Your task to perform on an android device: install app "Walmart Shopping & Grocery" Image 0: 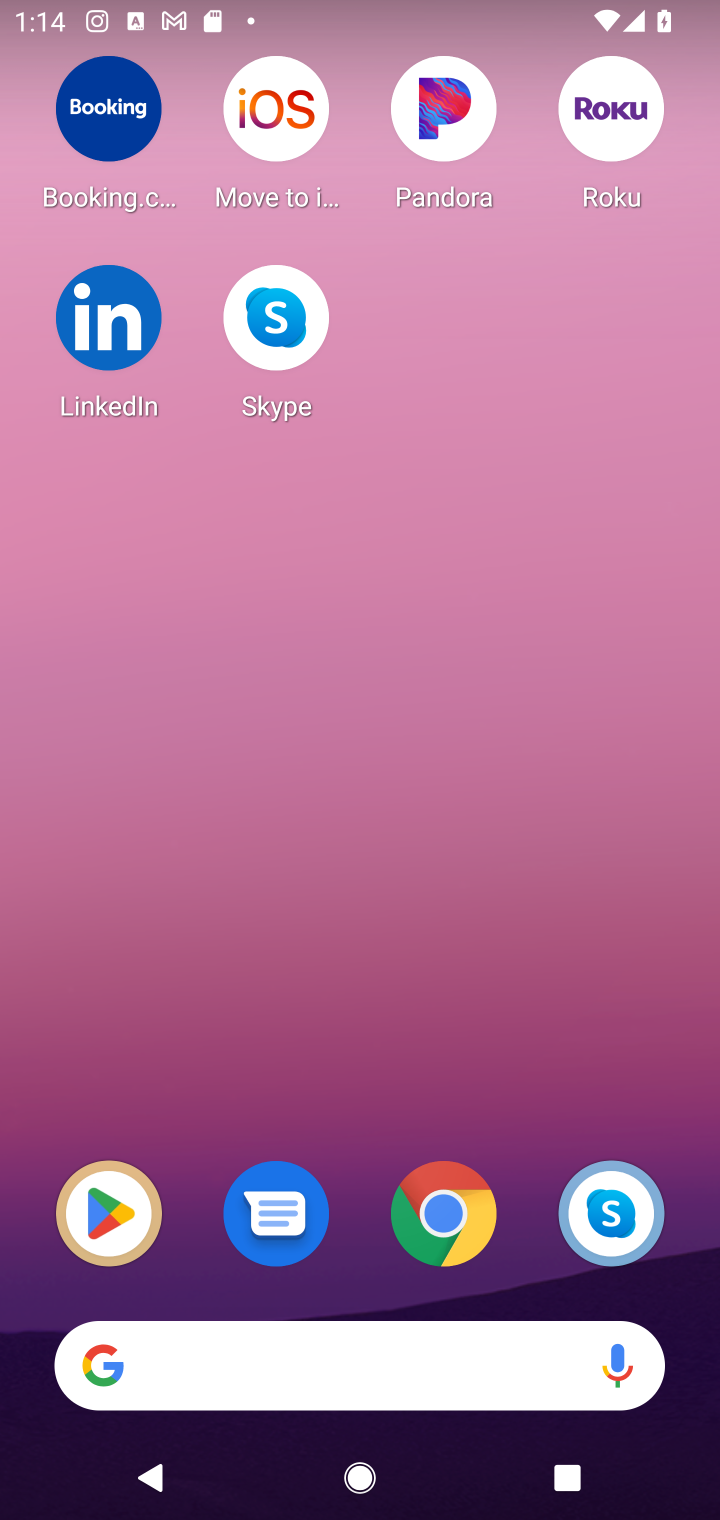
Step 0: click (93, 1239)
Your task to perform on an android device: install app "Walmart Shopping & Grocery" Image 1: 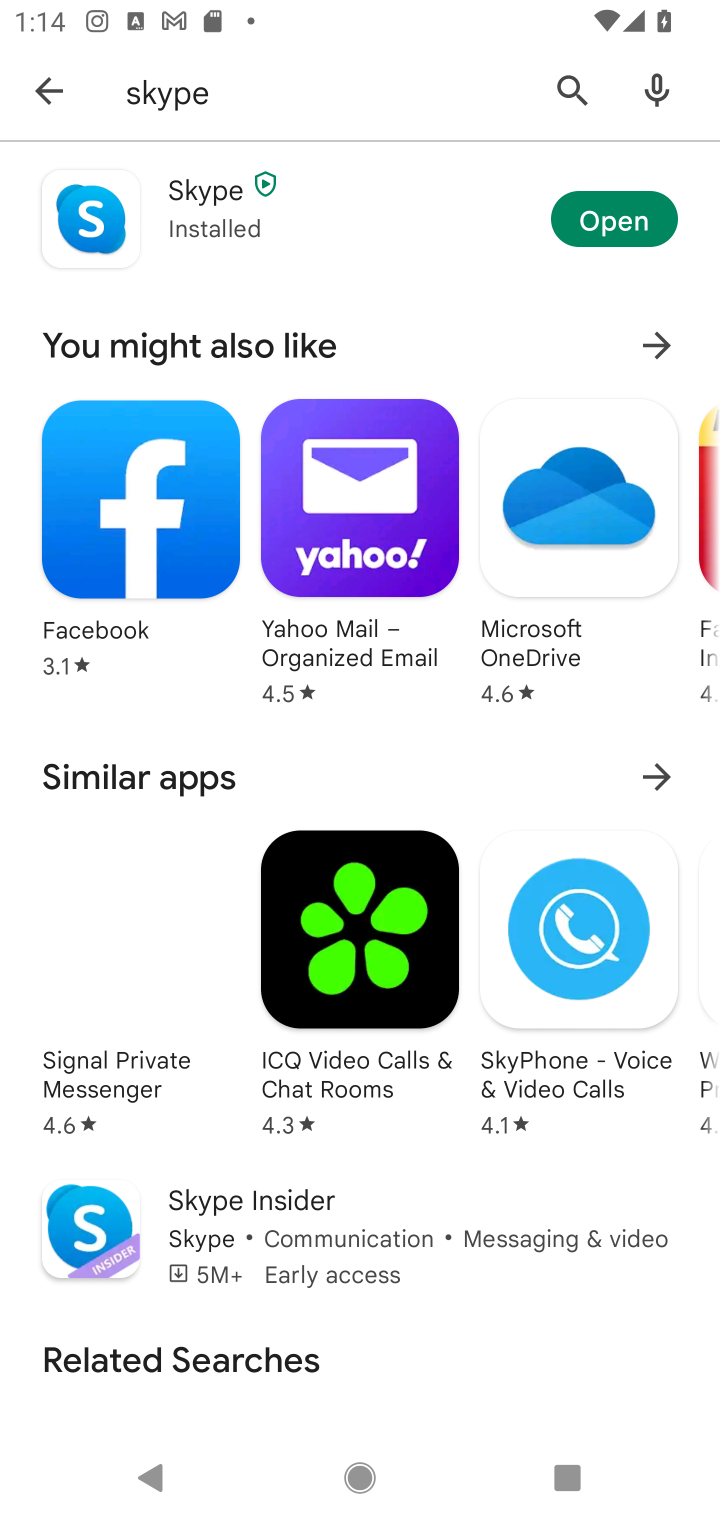
Step 1: click (46, 89)
Your task to perform on an android device: install app "Walmart Shopping & Grocery" Image 2: 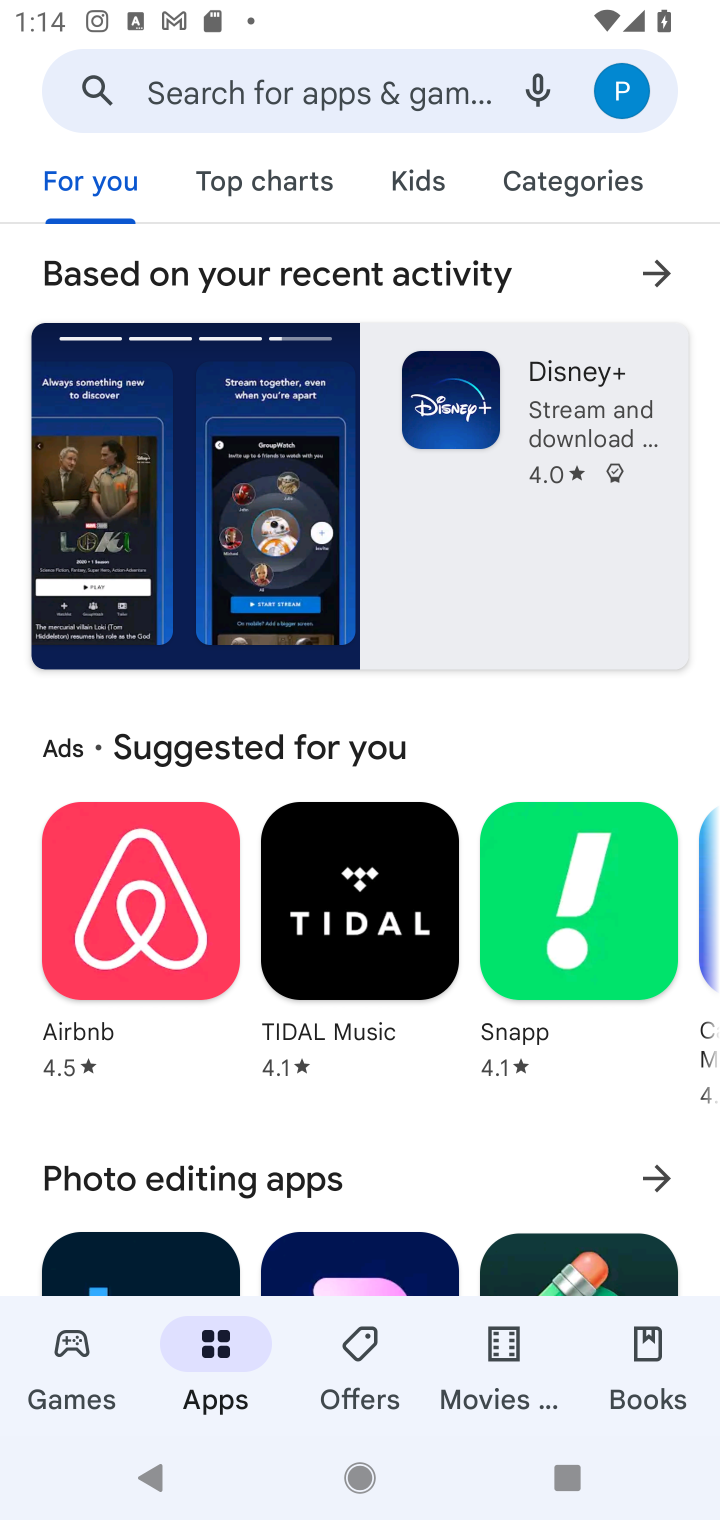
Step 2: click (201, 89)
Your task to perform on an android device: install app "Walmart Shopping & Grocery" Image 3: 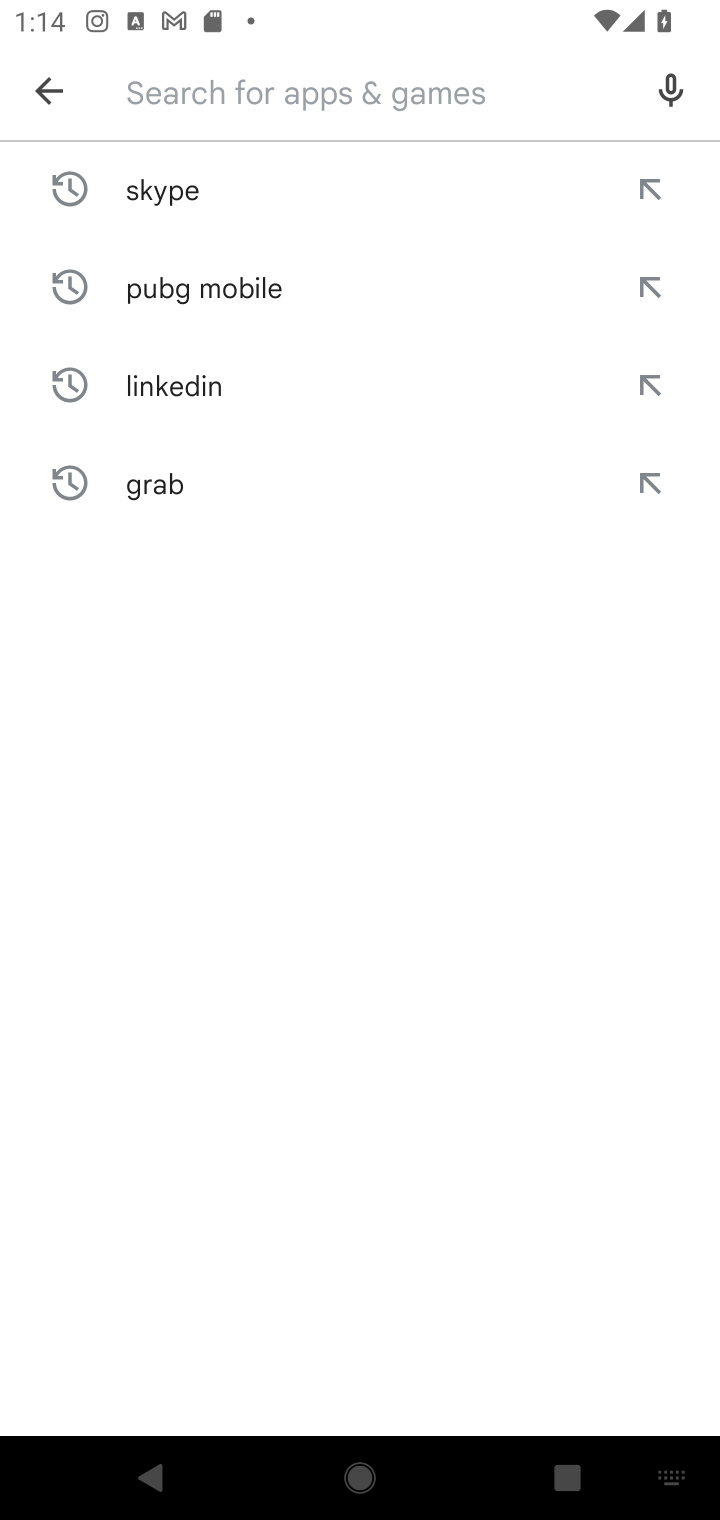
Step 3: type "Walmart Shopping & Grocery"
Your task to perform on an android device: install app "Walmart Shopping & Grocery" Image 4: 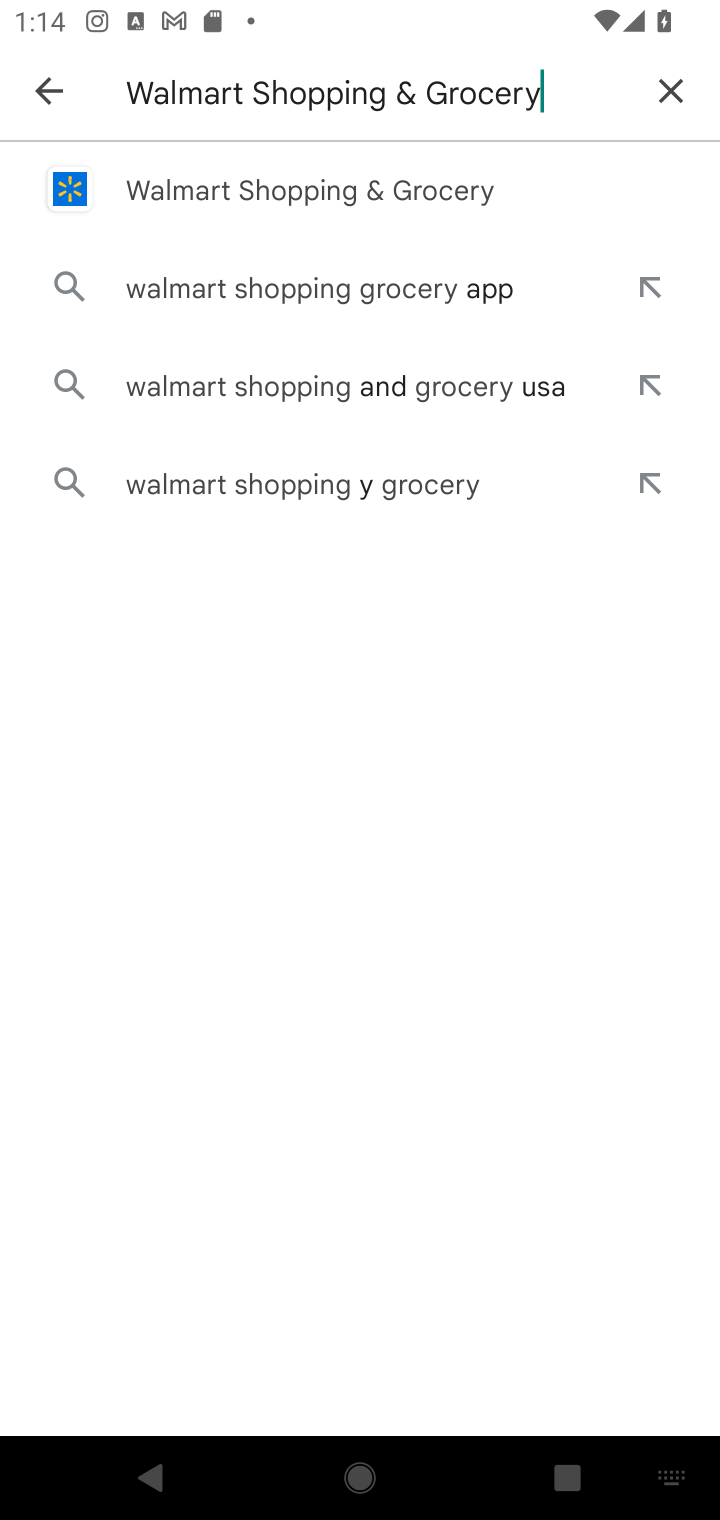
Step 4: click (341, 202)
Your task to perform on an android device: install app "Walmart Shopping & Grocery" Image 5: 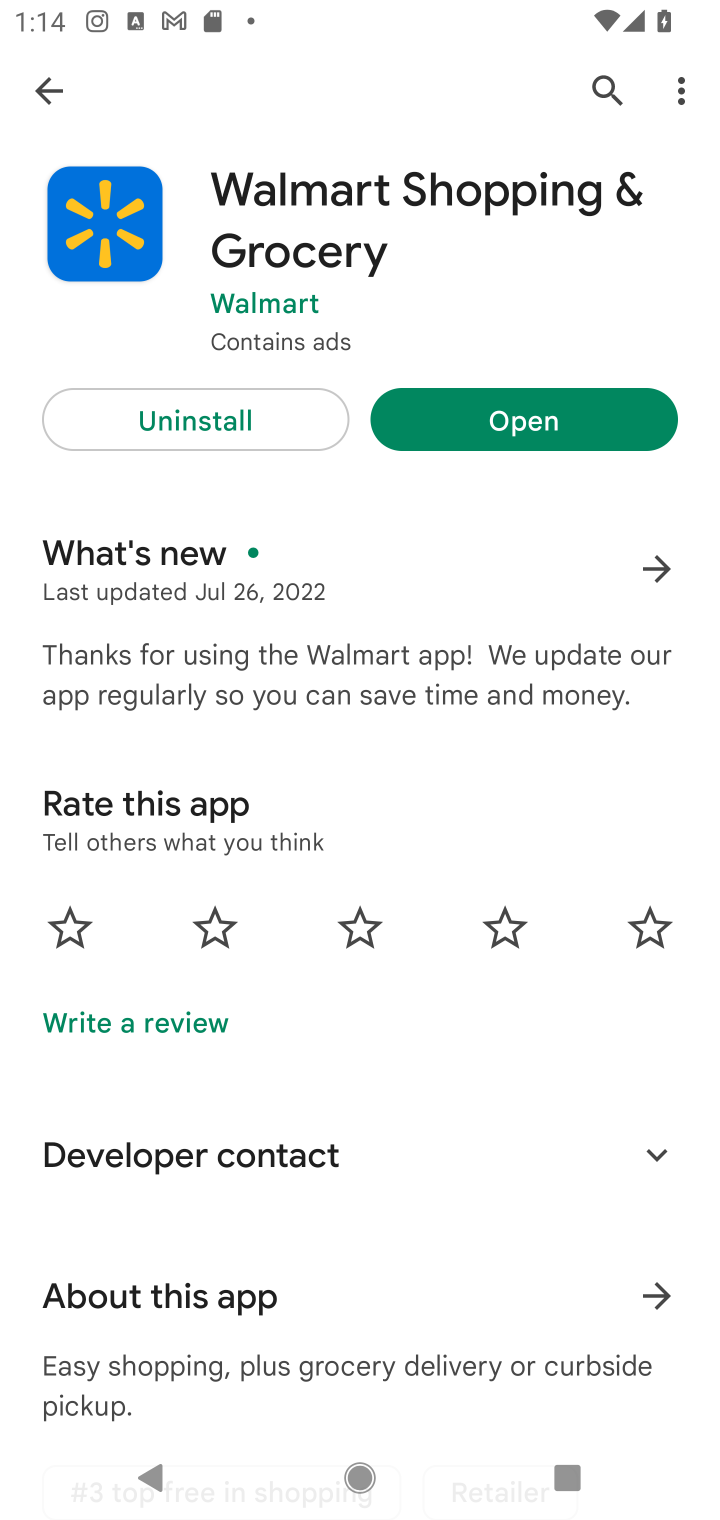
Step 5: click (466, 393)
Your task to perform on an android device: install app "Walmart Shopping & Grocery" Image 6: 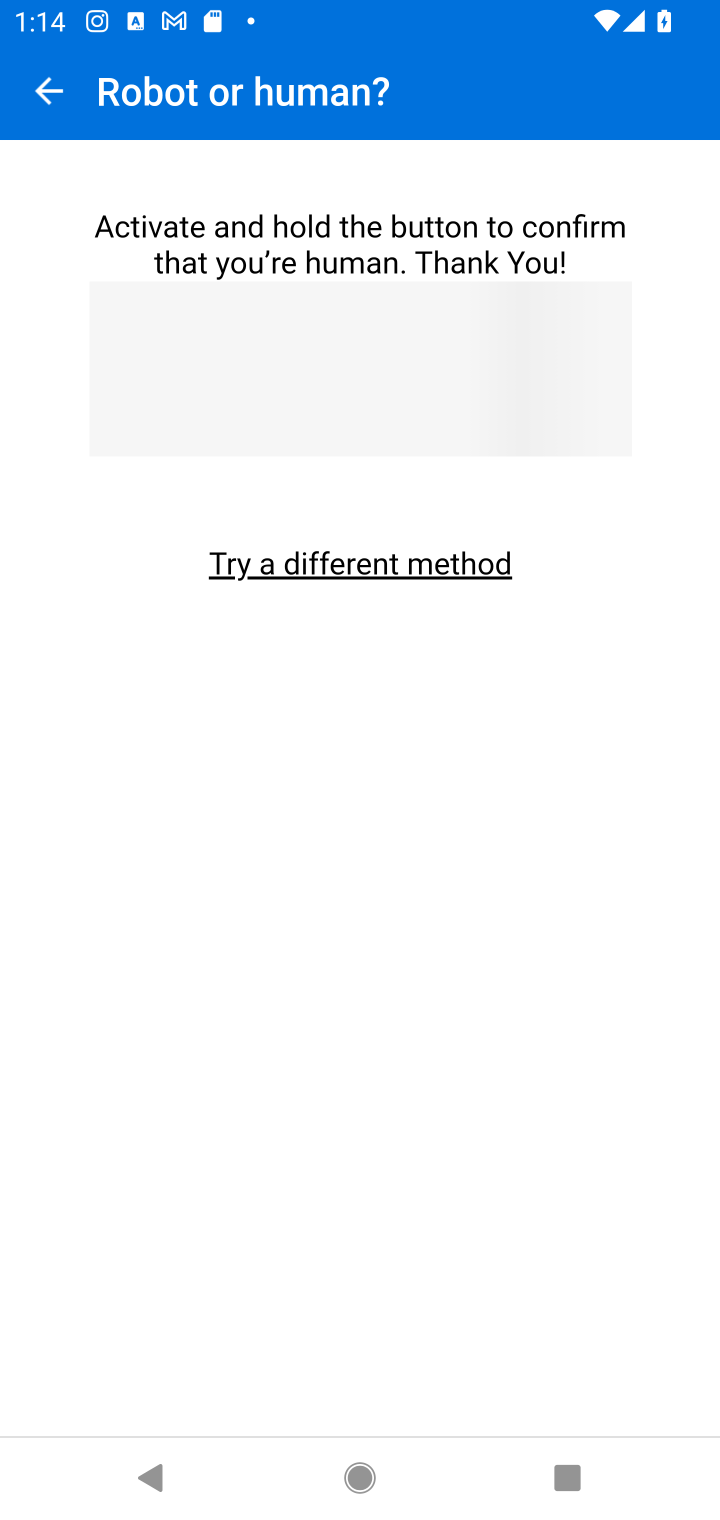
Step 6: task complete